Your task to perform on an android device: Do I have any events this weekend? Image 0: 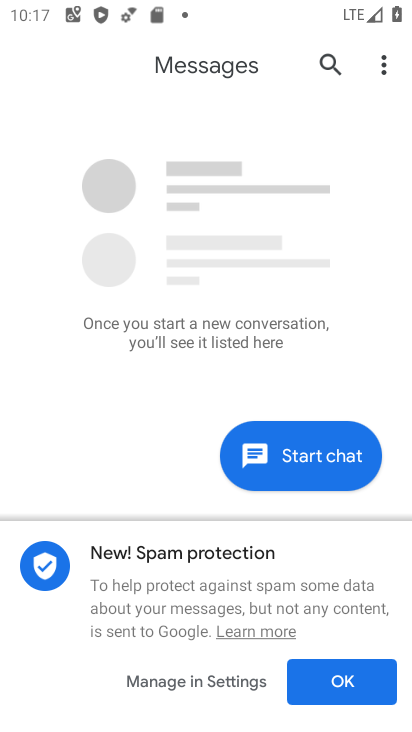
Step 0: press home button
Your task to perform on an android device: Do I have any events this weekend? Image 1: 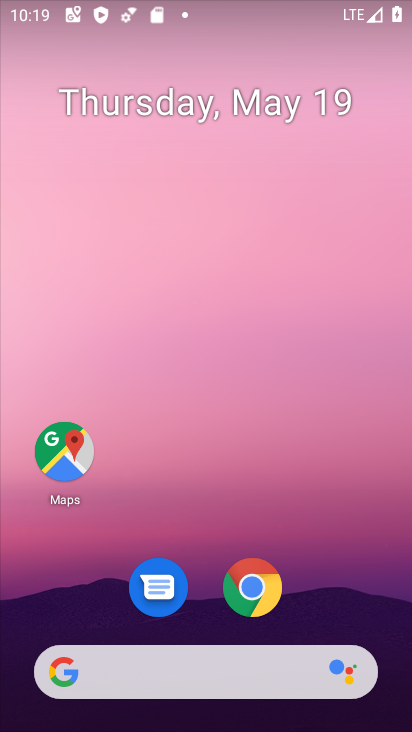
Step 1: click (209, 107)
Your task to perform on an android device: Do I have any events this weekend? Image 2: 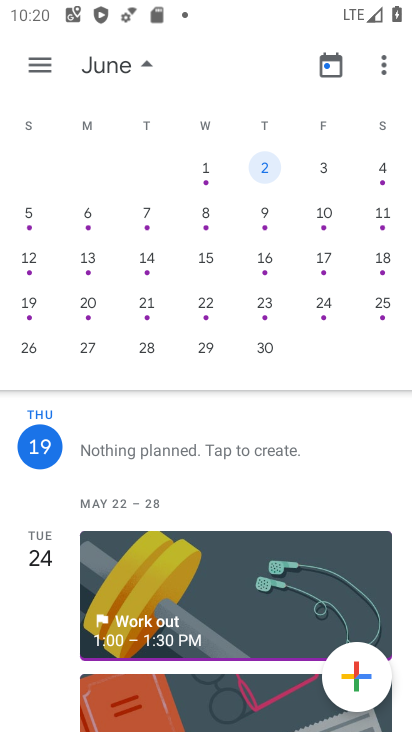
Step 2: drag from (358, 292) to (331, 328)
Your task to perform on an android device: Do I have any events this weekend? Image 3: 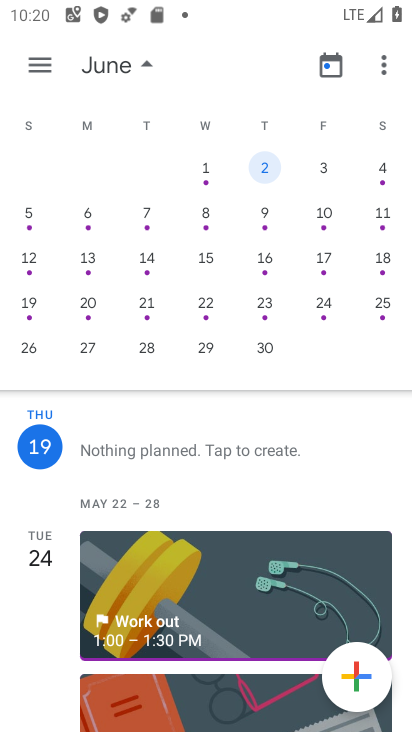
Step 3: drag from (25, 385) to (386, 322)
Your task to perform on an android device: Do I have any events this weekend? Image 4: 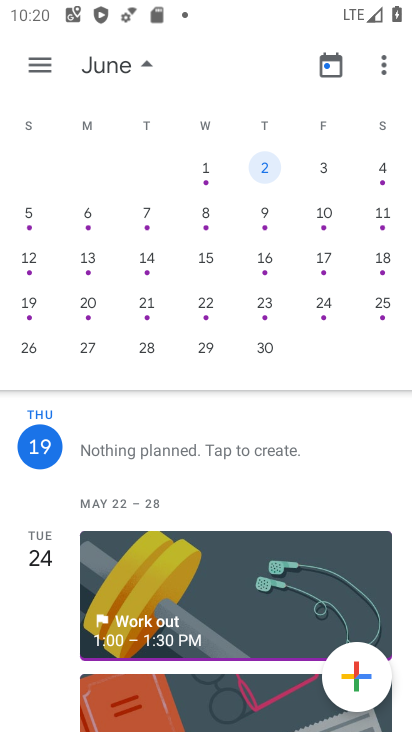
Step 4: drag from (16, 153) to (410, 239)
Your task to perform on an android device: Do I have any events this weekend? Image 5: 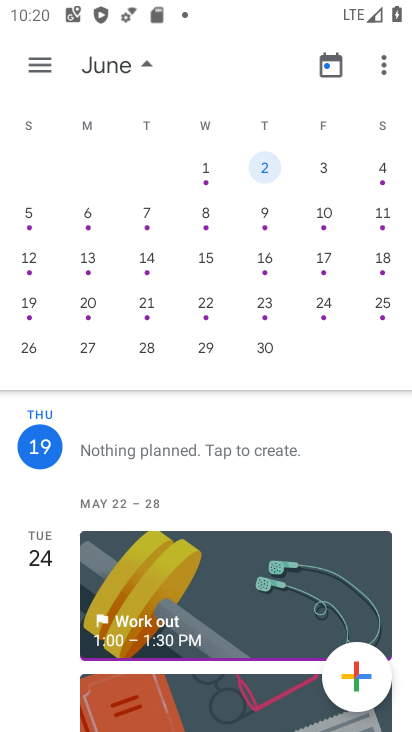
Step 5: click (120, 55)
Your task to perform on an android device: Do I have any events this weekend? Image 6: 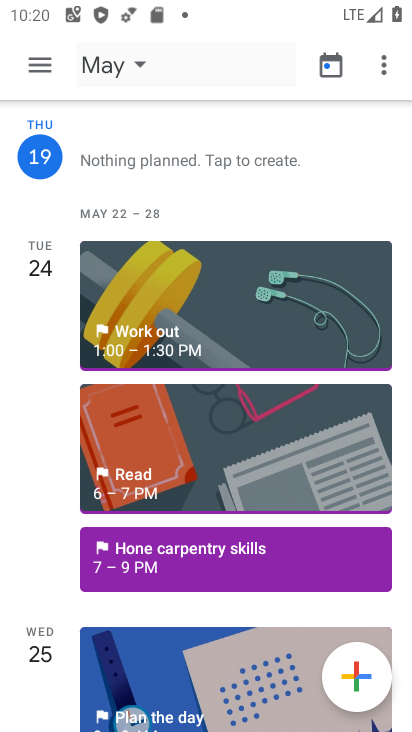
Step 6: click (120, 77)
Your task to perform on an android device: Do I have any events this weekend? Image 7: 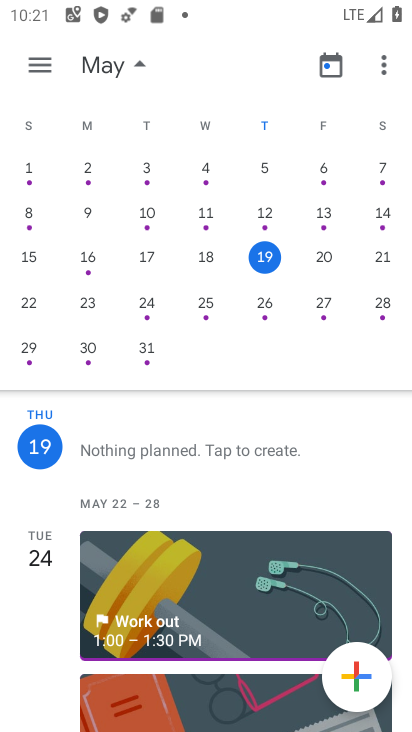
Step 7: click (380, 246)
Your task to perform on an android device: Do I have any events this weekend? Image 8: 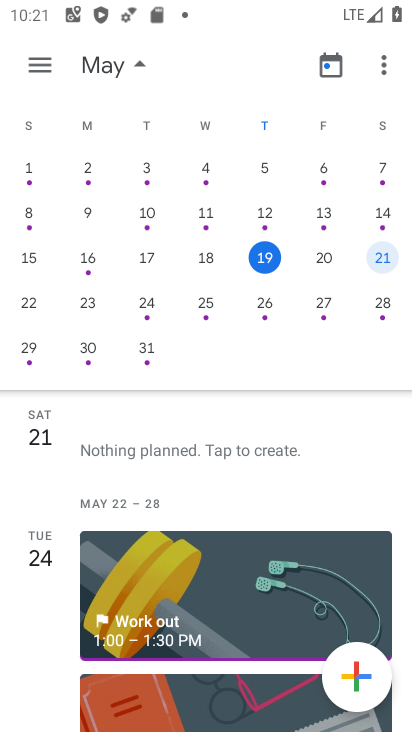
Step 8: task complete